Your task to perform on an android device: toggle priority inbox in the gmail app Image 0: 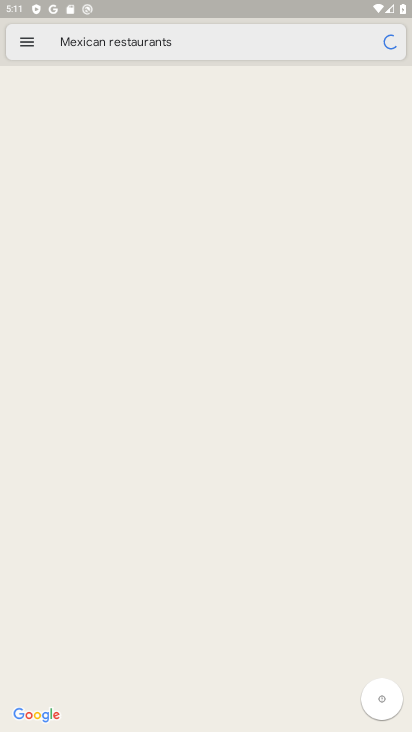
Step 0: press home button
Your task to perform on an android device: toggle priority inbox in the gmail app Image 1: 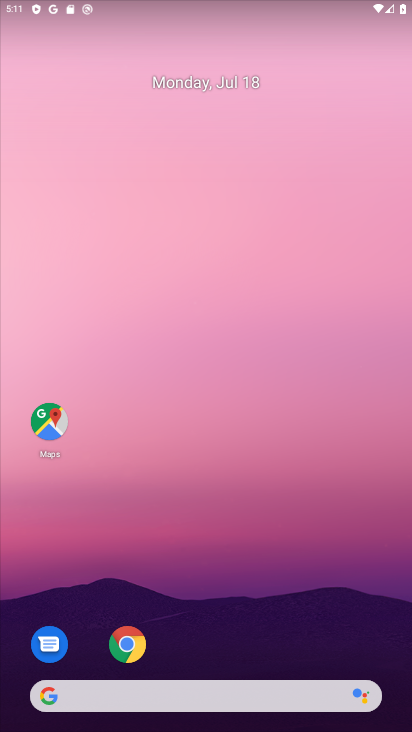
Step 1: drag from (224, 652) to (223, 89)
Your task to perform on an android device: toggle priority inbox in the gmail app Image 2: 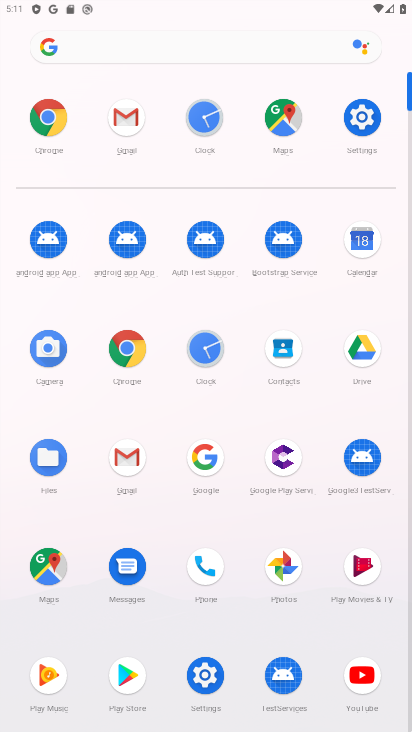
Step 2: click (120, 123)
Your task to perform on an android device: toggle priority inbox in the gmail app Image 3: 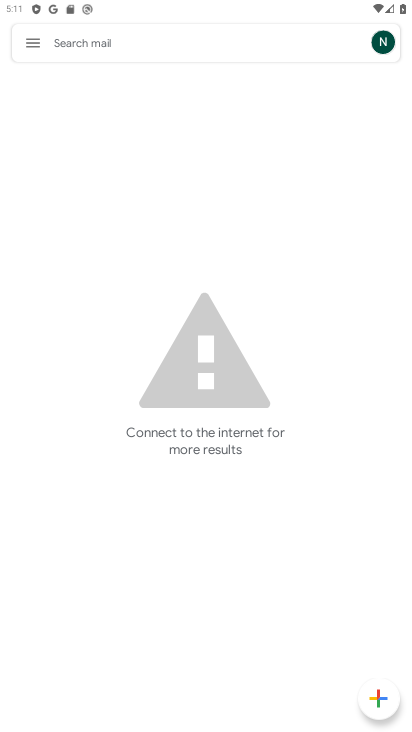
Step 3: click (27, 45)
Your task to perform on an android device: toggle priority inbox in the gmail app Image 4: 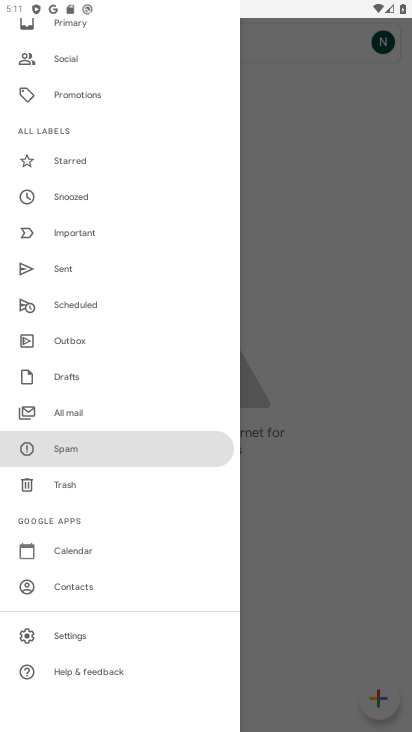
Step 4: click (83, 641)
Your task to perform on an android device: toggle priority inbox in the gmail app Image 5: 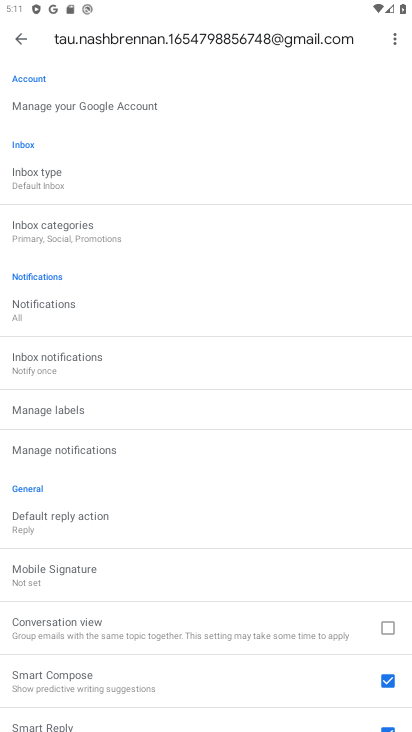
Step 5: click (36, 176)
Your task to perform on an android device: toggle priority inbox in the gmail app Image 6: 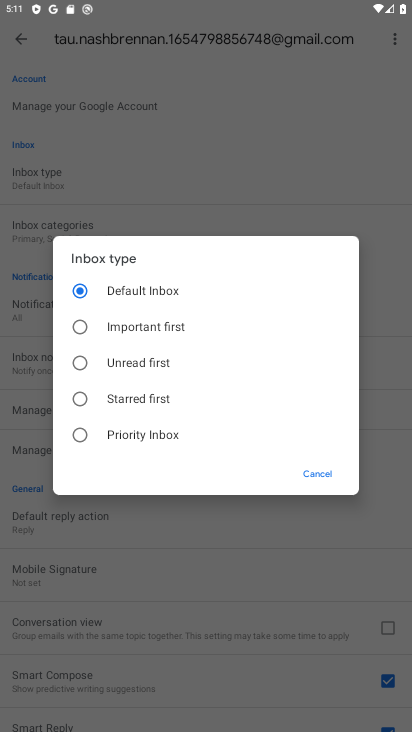
Step 6: click (77, 431)
Your task to perform on an android device: toggle priority inbox in the gmail app Image 7: 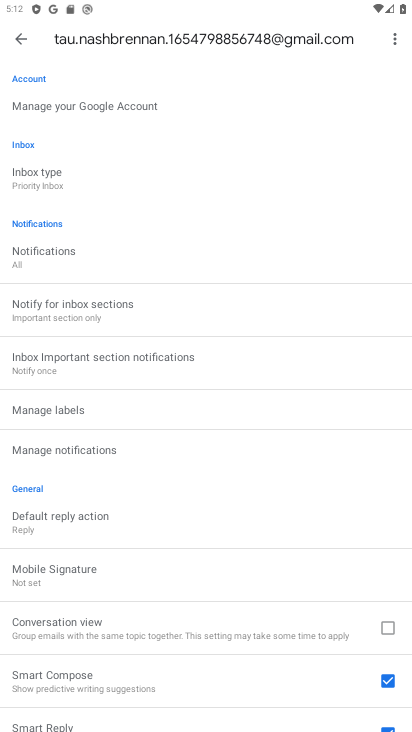
Step 7: task complete